Your task to perform on an android device: toggle javascript in the chrome app Image 0: 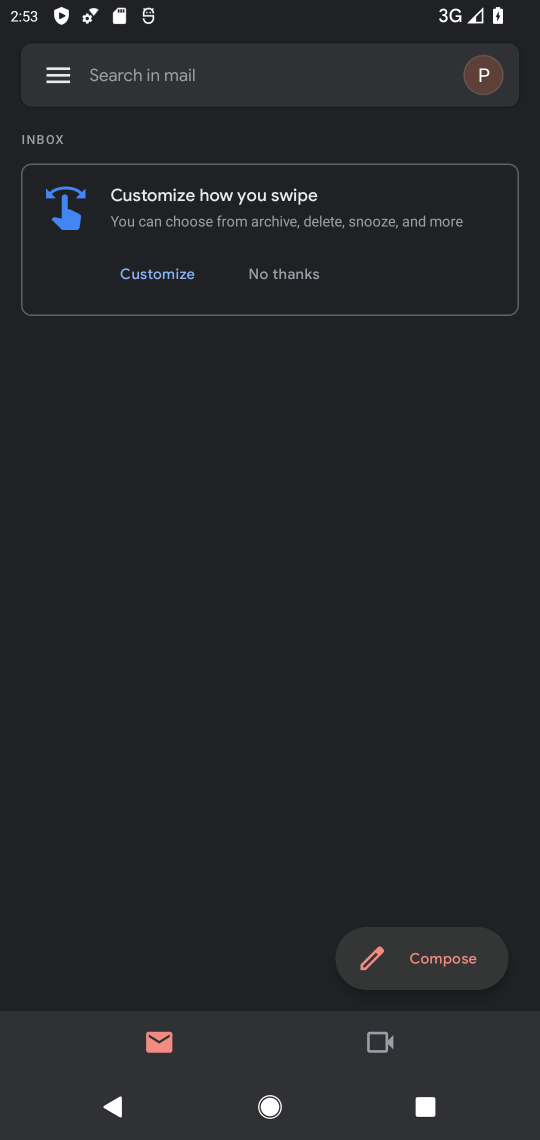
Step 0: press home button
Your task to perform on an android device: toggle javascript in the chrome app Image 1: 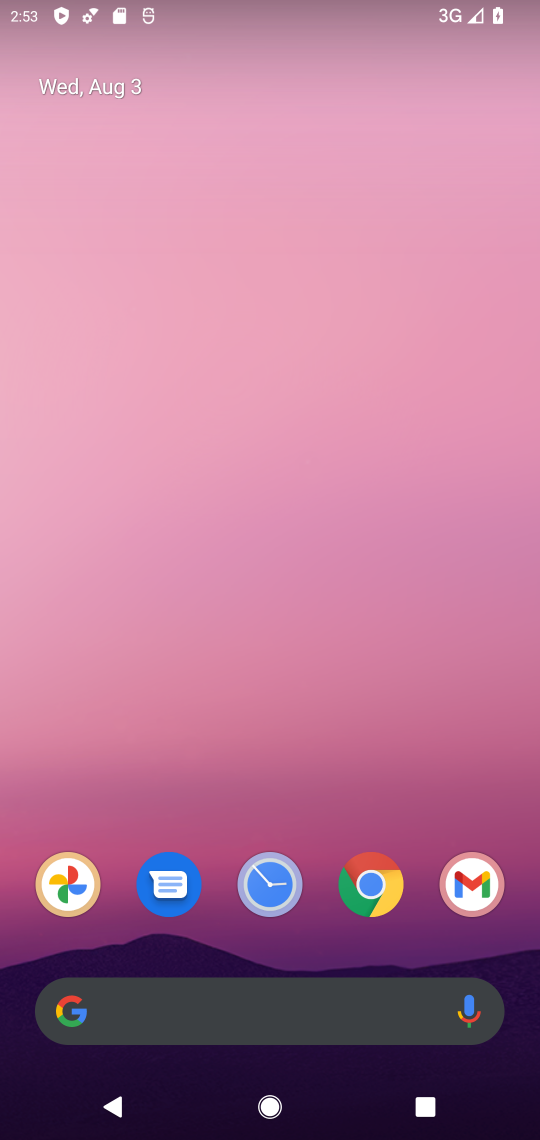
Step 1: click (386, 903)
Your task to perform on an android device: toggle javascript in the chrome app Image 2: 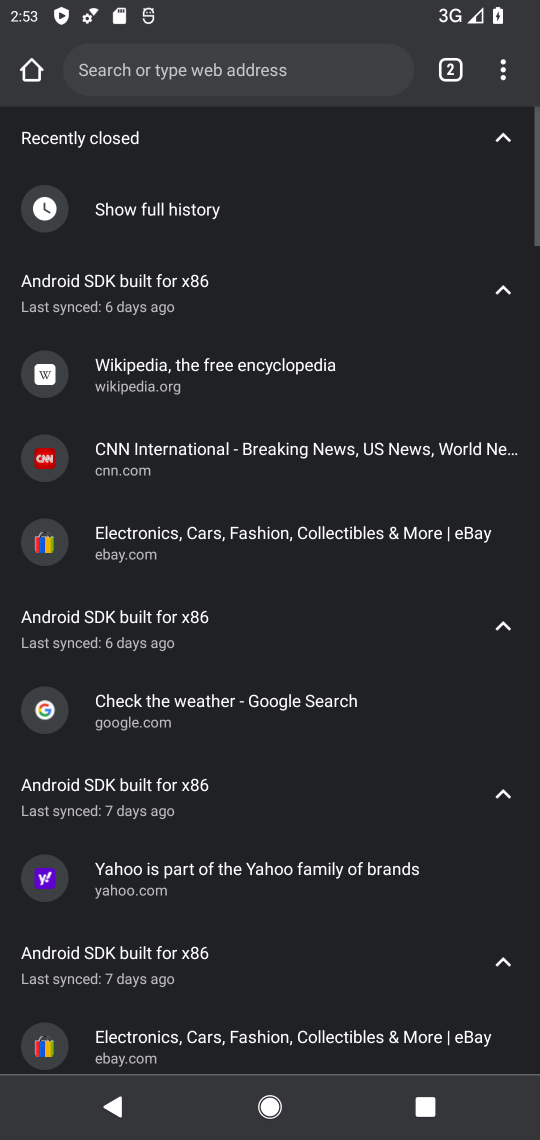
Step 2: click (510, 61)
Your task to perform on an android device: toggle javascript in the chrome app Image 3: 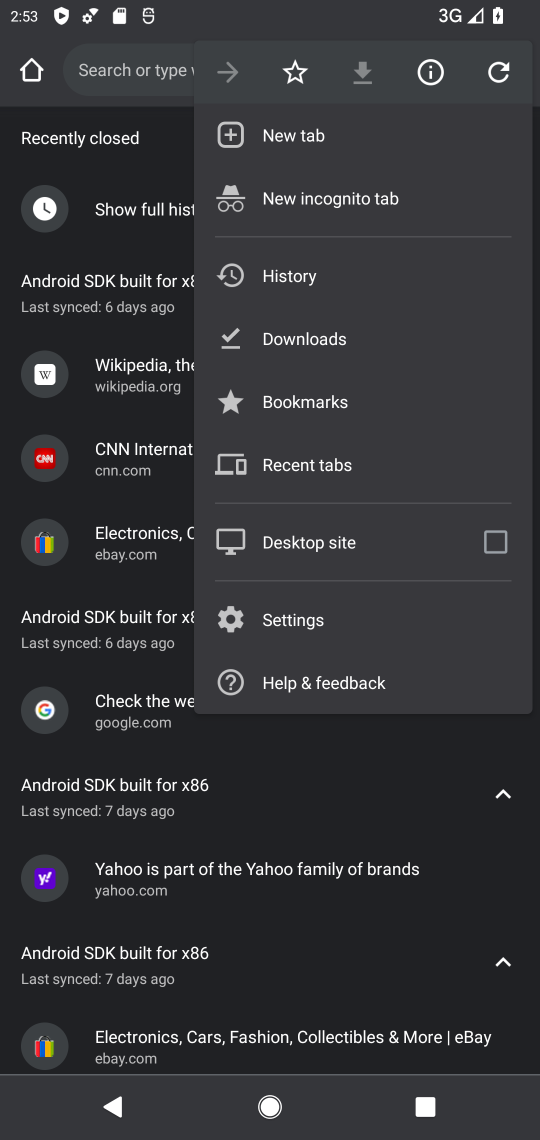
Step 3: click (271, 617)
Your task to perform on an android device: toggle javascript in the chrome app Image 4: 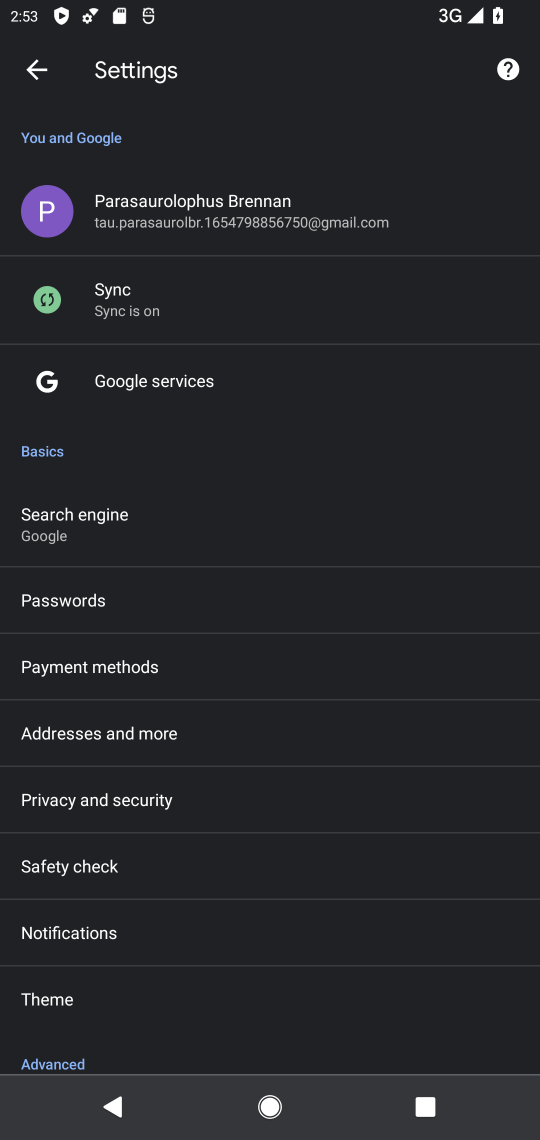
Step 4: drag from (138, 970) to (190, 531)
Your task to perform on an android device: toggle javascript in the chrome app Image 5: 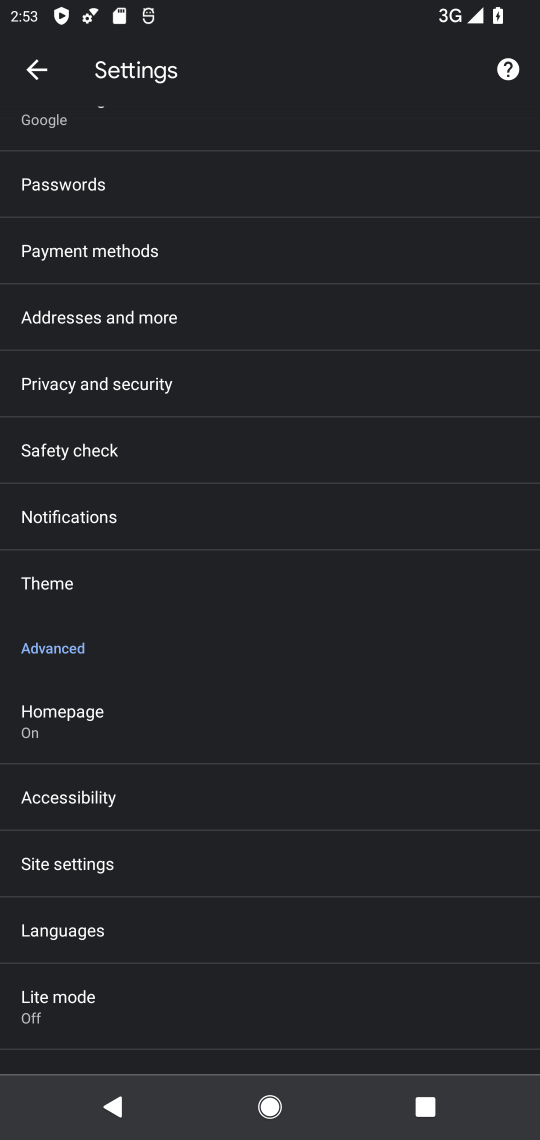
Step 5: click (183, 880)
Your task to perform on an android device: toggle javascript in the chrome app Image 6: 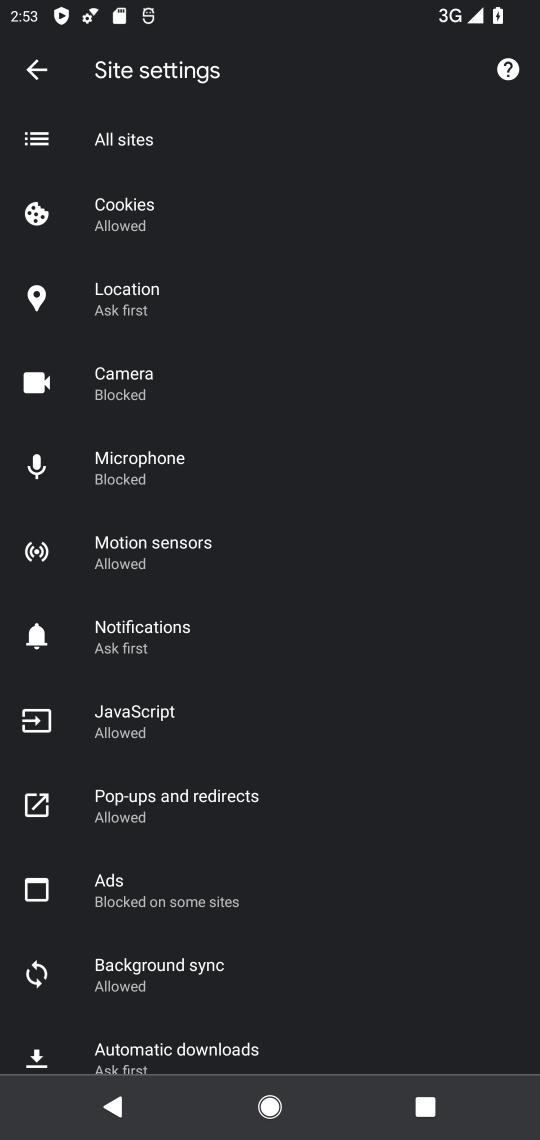
Step 6: click (221, 734)
Your task to perform on an android device: toggle javascript in the chrome app Image 7: 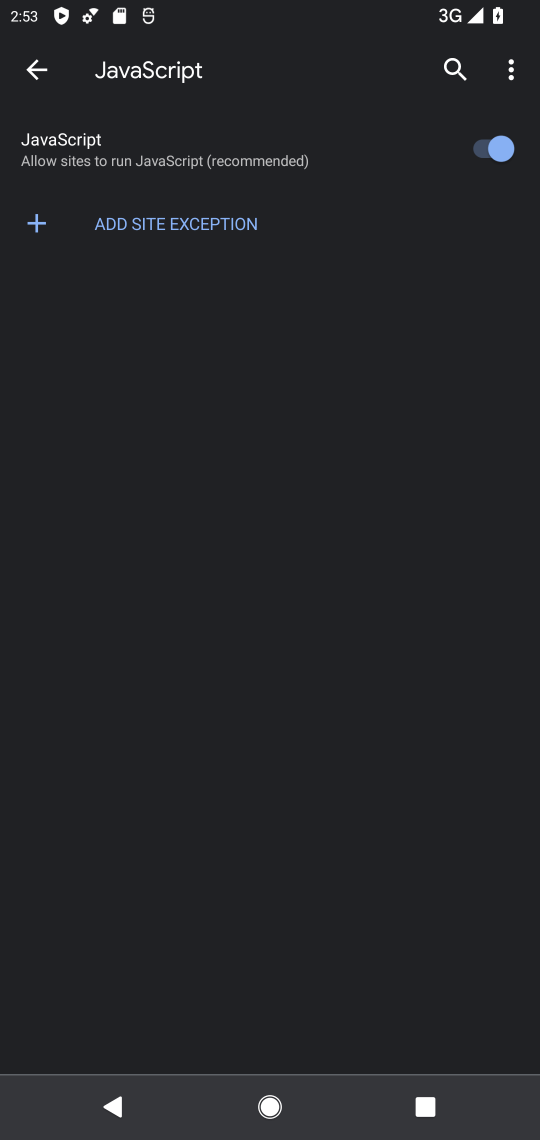
Step 7: click (487, 133)
Your task to perform on an android device: toggle javascript in the chrome app Image 8: 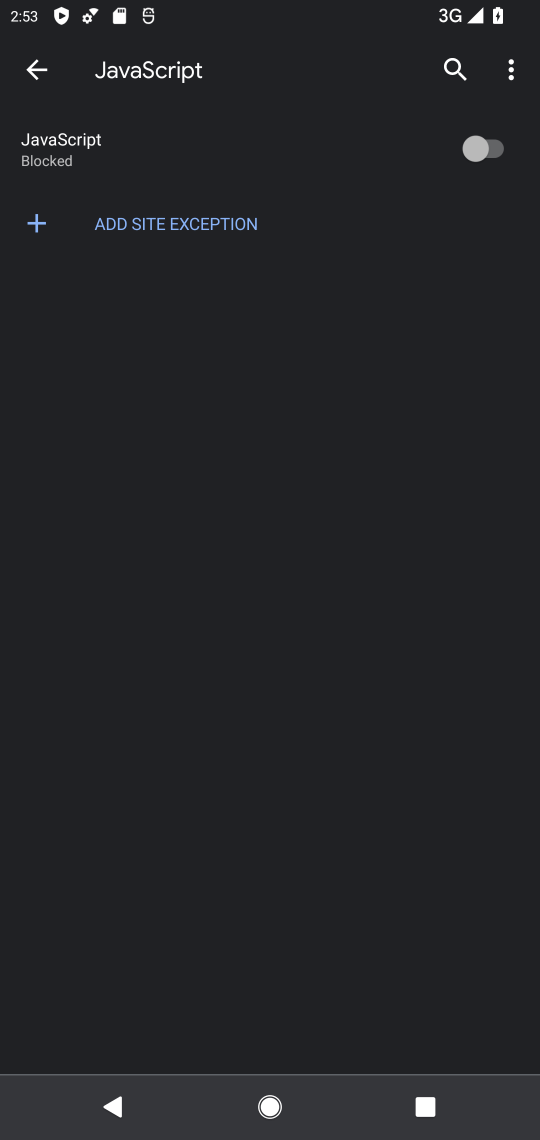
Step 8: task complete